Your task to perform on an android device: change the upload size in google photos Image 0: 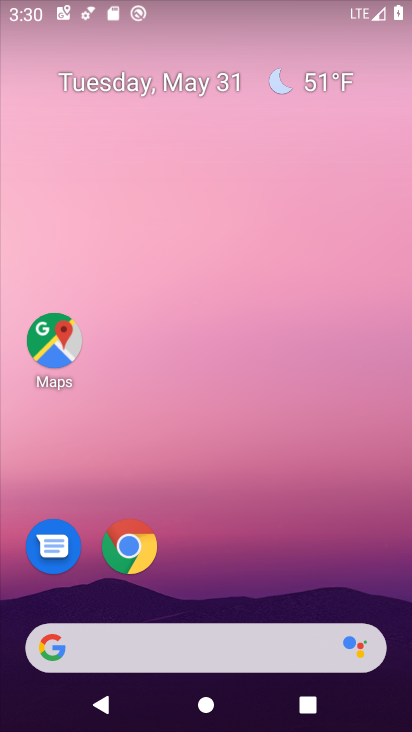
Step 0: drag from (264, 451) to (204, 7)
Your task to perform on an android device: change the upload size in google photos Image 1: 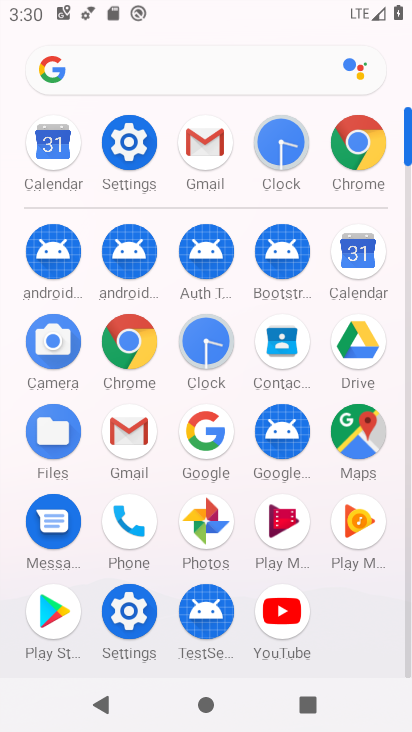
Step 1: click (204, 534)
Your task to perform on an android device: change the upload size in google photos Image 2: 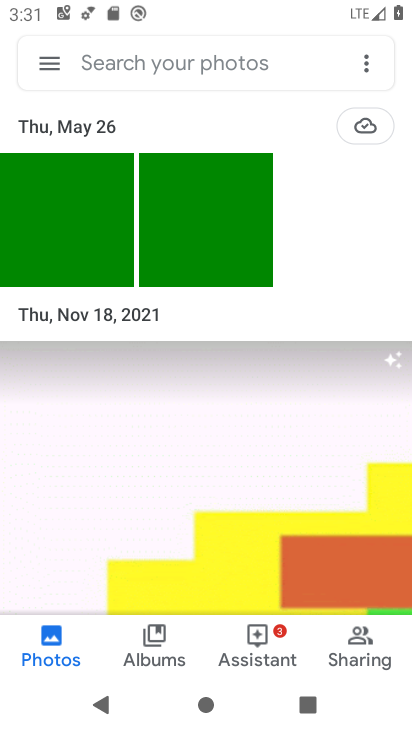
Step 2: click (46, 60)
Your task to perform on an android device: change the upload size in google photos Image 3: 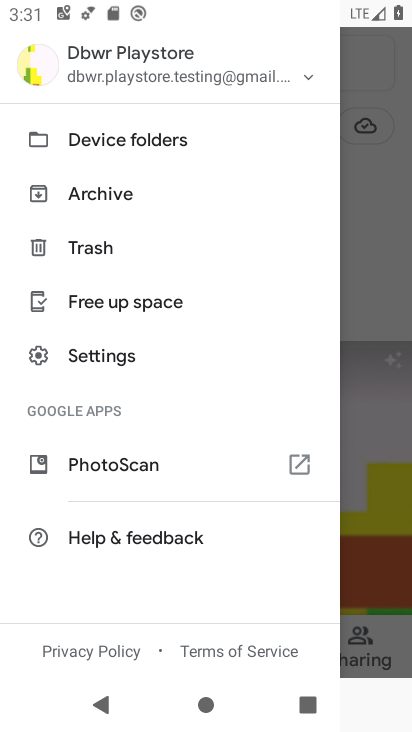
Step 3: click (166, 356)
Your task to perform on an android device: change the upload size in google photos Image 4: 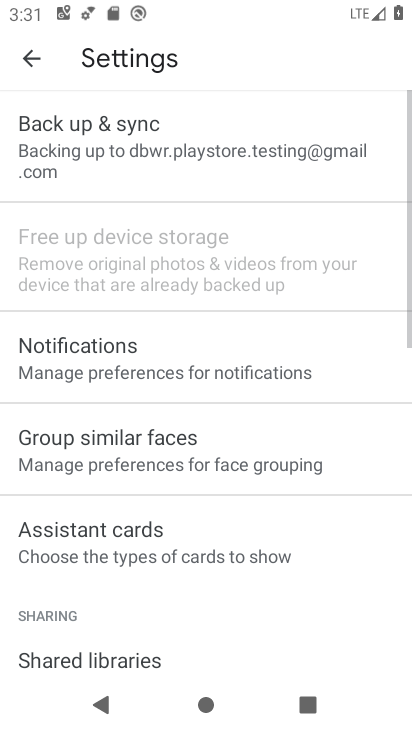
Step 4: click (197, 139)
Your task to perform on an android device: change the upload size in google photos Image 5: 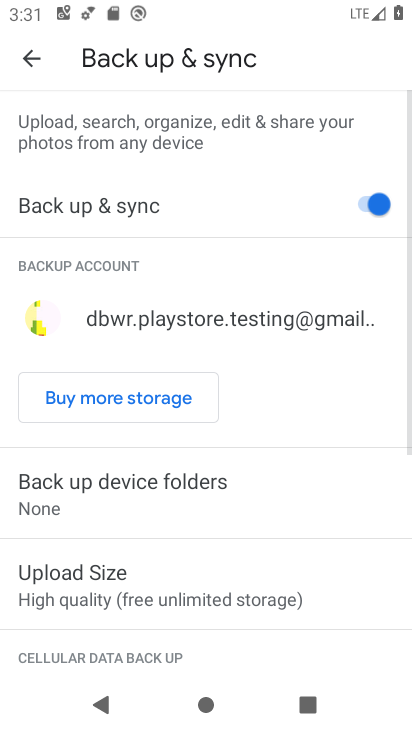
Step 5: click (197, 595)
Your task to perform on an android device: change the upload size in google photos Image 6: 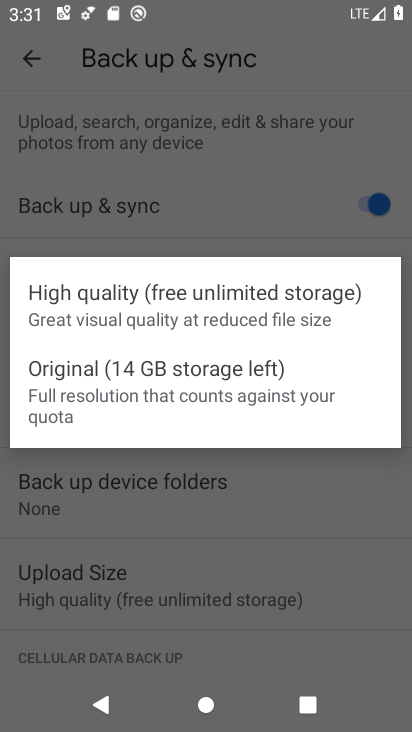
Step 6: click (151, 378)
Your task to perform on an android device: change the upload size in google photos Image 7: 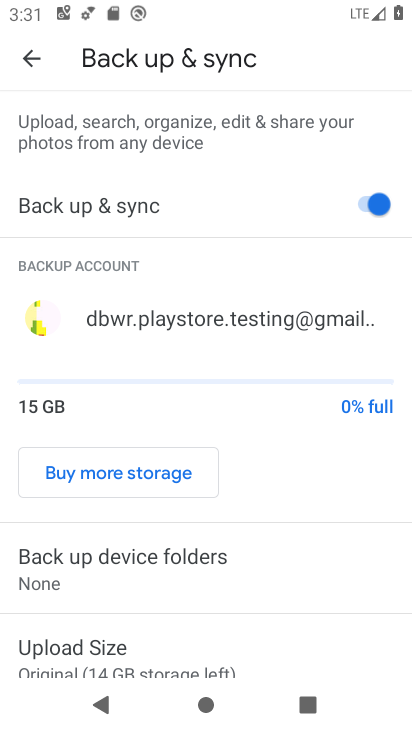
Step 7: task complete